Your task to perform on an android device: open device folders in google photos Image 0: 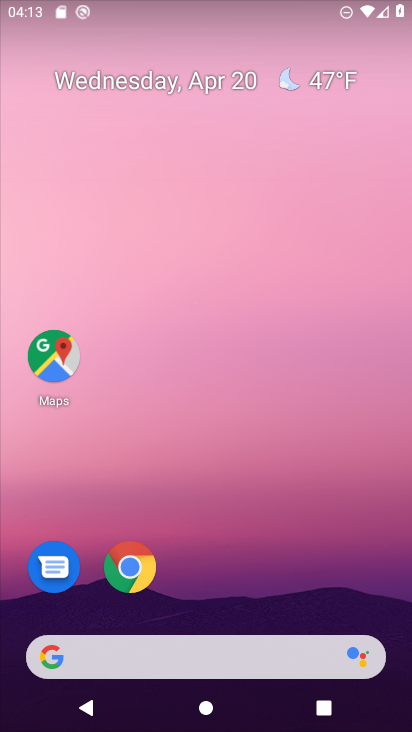
Step 0: drag from (205, 568) to (195, 147)
Your task to perform on an android device: open device folders in google photos Image 1: 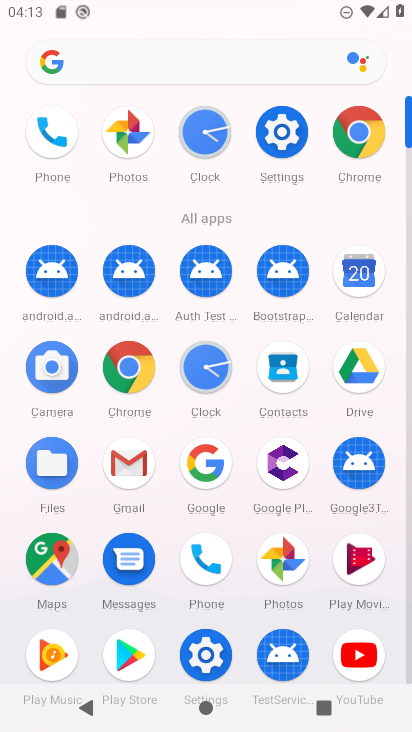
Step 1: click (135, 145)
Your task to perform on an android device: open device folders in google photos Image 2: 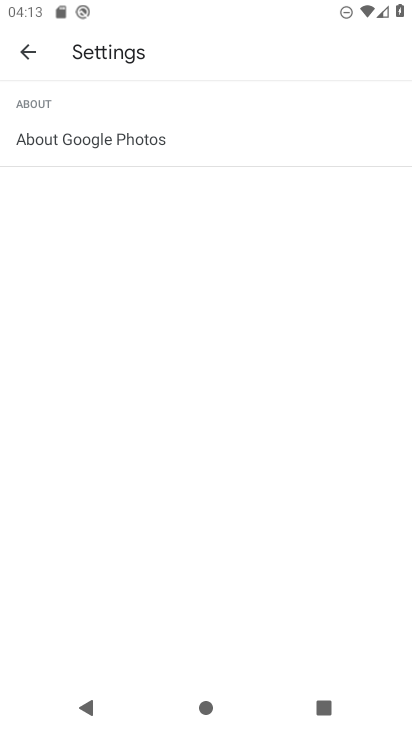
Step 2: click (11, 42)
Your task to perform on an android device: open device folders in google photos Image 3: 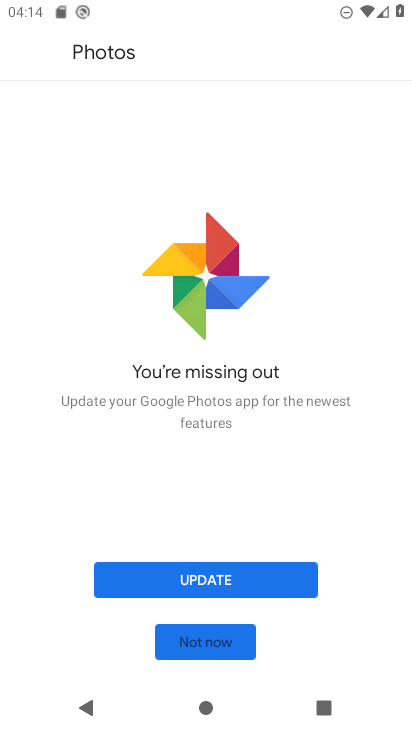
Step 3: click (223, 654)
Your task to perform on an android device: open device folders in google photos Image 4: 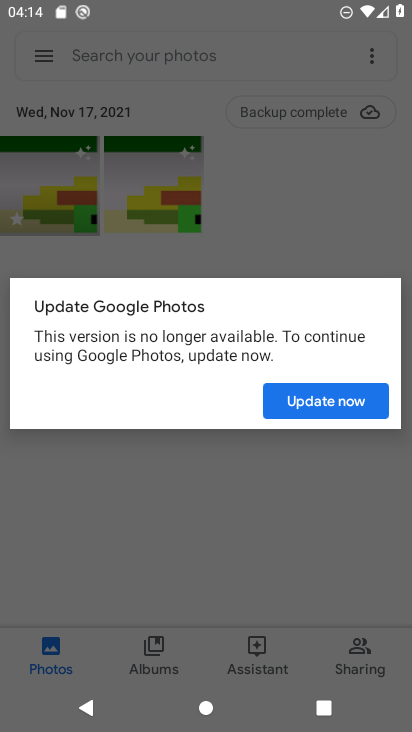
Step 4: click (297, 411)
Your task to perform on an android device: open device folders in google photos Image 5: 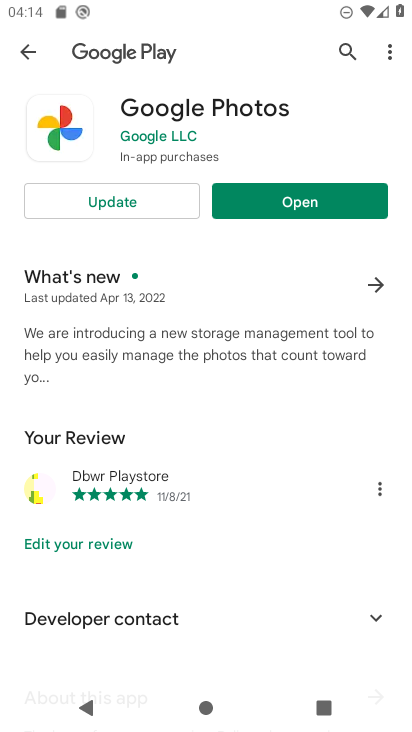
Step 5: click (288, 197)
Your task to perform on an android device: open device folders in google photos Image 6: 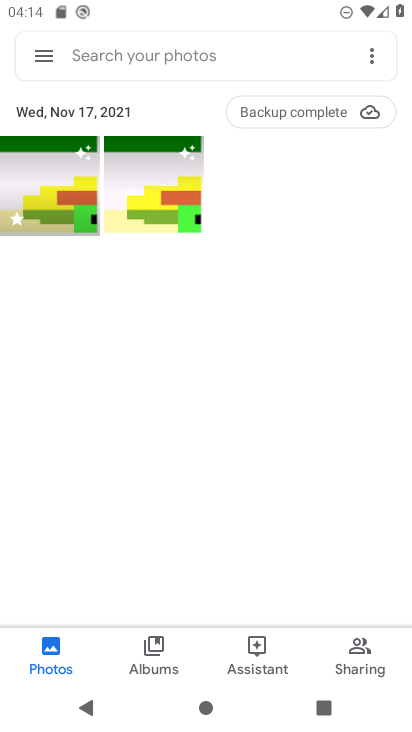
Step 6: click (45, 48)
Your task to perform on an android device: open device folders in google photos Image 7: 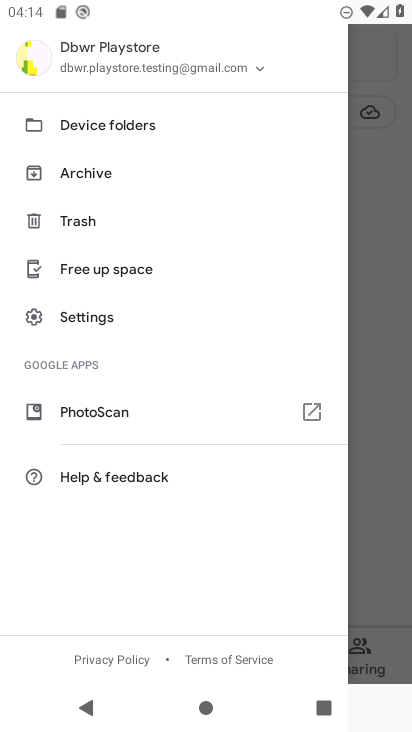
Step 7: click (67, 132)
Your task to perform on an android device: open device folders in google photos Image 8: 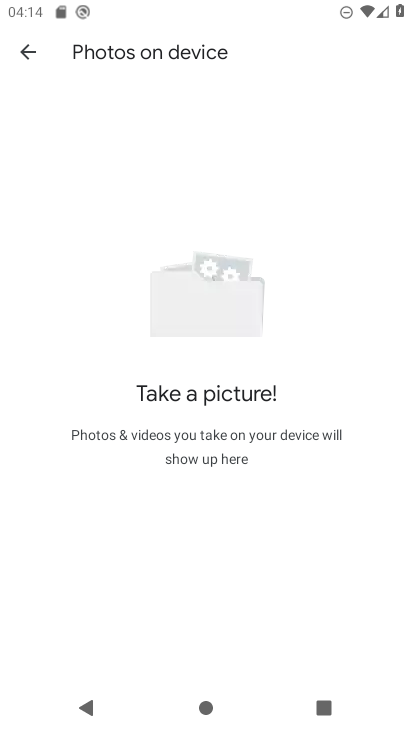
Step 8: task complete